Your task to perform on an android device: Open calendar and show me the first week of next month Image 0: 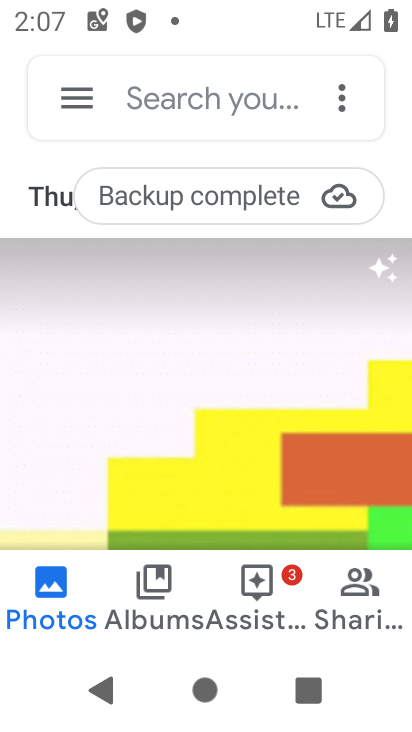
Step 0: press home button
Your task to perform on an android device: Open calendar and show me the first week of next month Image 1: 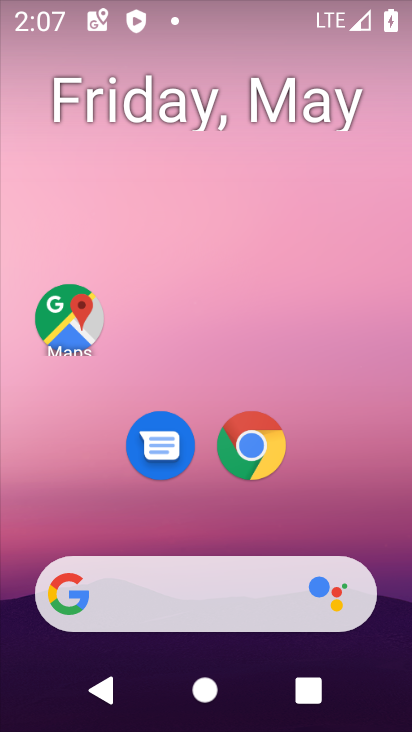
Step 1: drag from (194, 535) to (184, 77)
Your task to perform on an android device: Open calendar and show me the first week of next month Image 2: 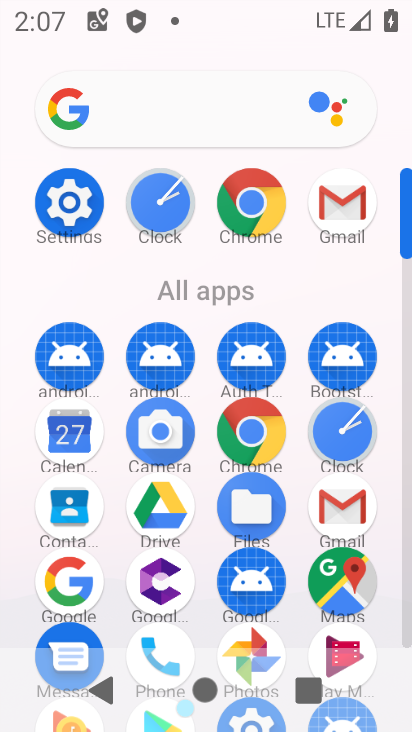
Step 2: click (73, 428)
Your task to perform on an android device: Open calendar and show me the first week of next month Image 3: 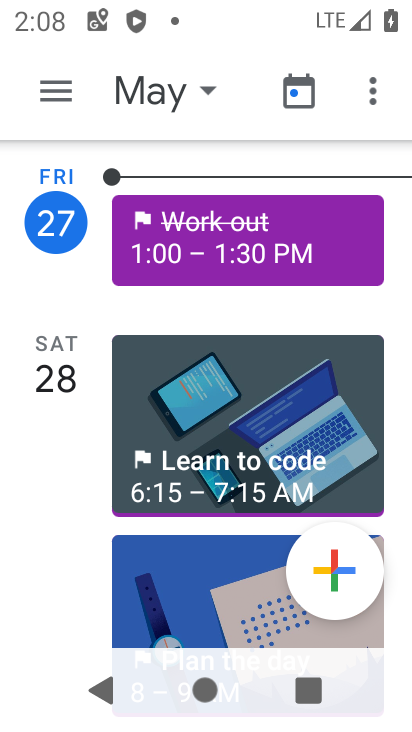
Step 3: click (57, 88)
Your task to perform on an android device: Open calendar and show me the first week of next month Image 4: 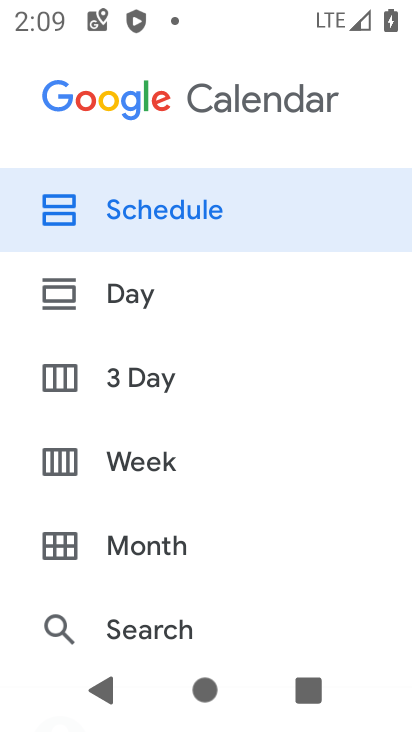
Step 4: click (107, 455)
Your task to perform on an android device: Open calendar and show me the first week of next month Image 5: 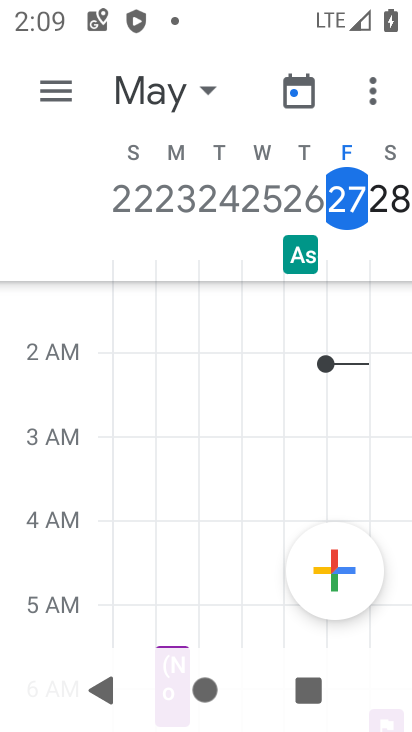
Step 5: drag from (347, 198) to (0, 216)
Your task to perform on an android device: Open calendar and show me the first week of next month Image 6: 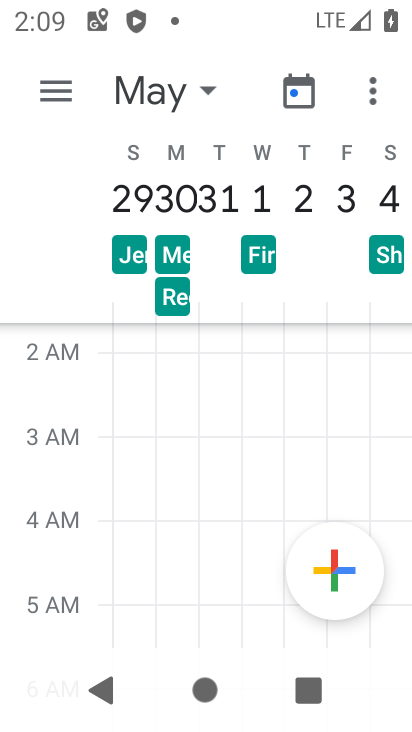
Step 6: click (255, 190)
Your task to perform on an android device: Open calendar and show me the first week of next month Image 7: 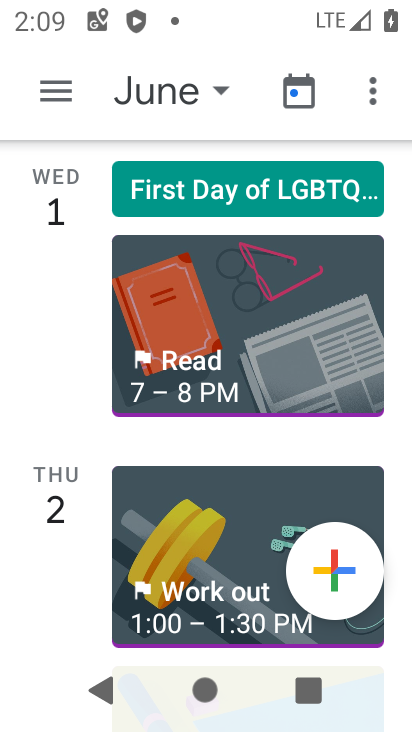
Step 7: task complete